Your task to perform on an android device: Open Yahoo.com Image 0: 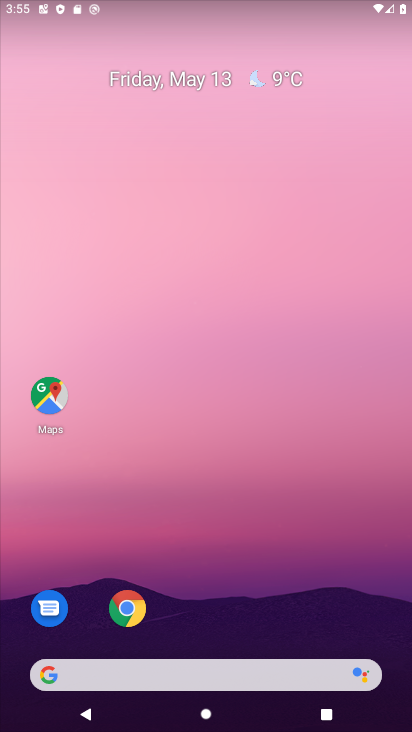
Step 0: click (176, 385)
Your task to perform on an android device: Open Yahoo.com Image 1: 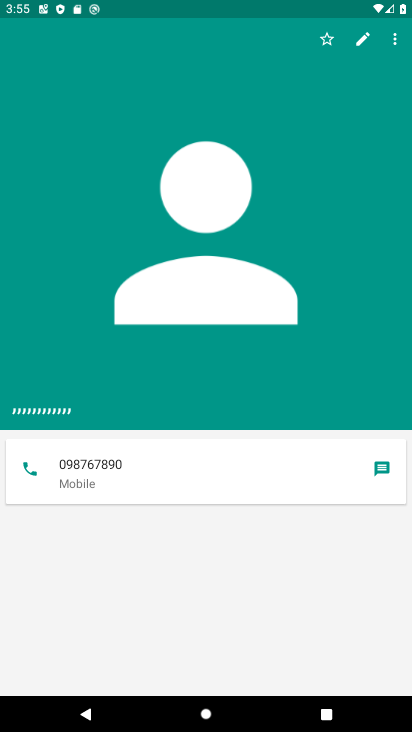
Step 1: press home button
Your task to perform on an android device: Open Yahoo.com Image 2: 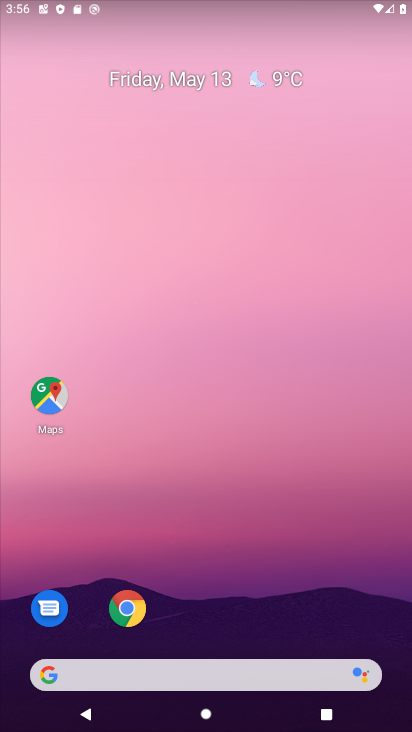
Step 2: drag from (136, 537) to (143, 446)
Your task to perform on an android device: Open Yahoo.com Image 3: 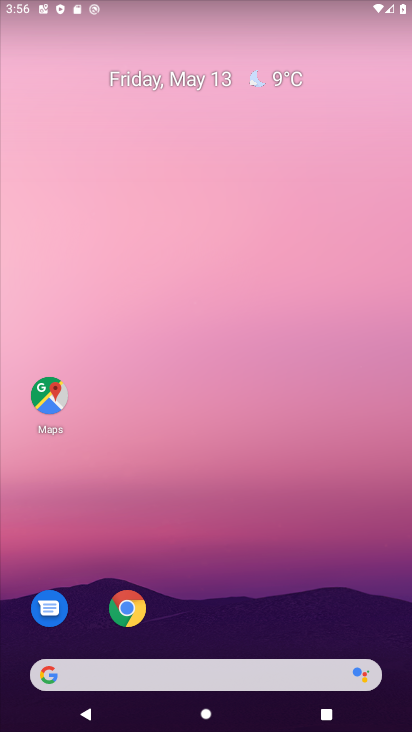
Step 3: drag from (216, 670) to (179, 410)
Your task to perform on an android device: Open Yahoo.com Image 4: 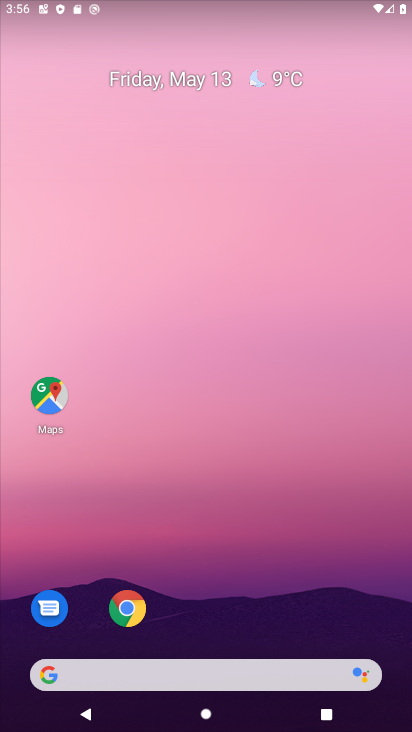
Step 4: drag from (170, 662) to (139, 312)
Your task to perform on an android device: Open Yahoo.com Image 5: 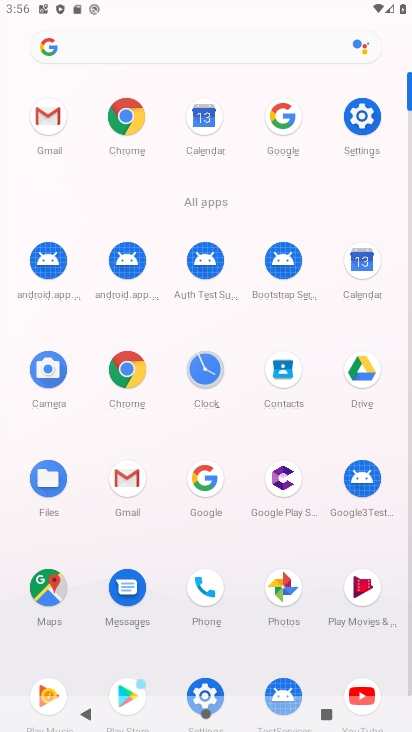
Step 5: click (131, 374)
Your task to perform on an android device: Open Yahoo.com Image 6: 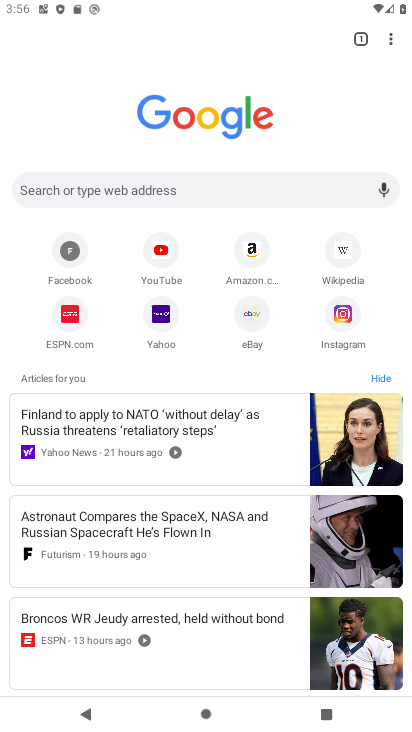
Step 6: click (160, 310)
Your task to perform on an android device: Open Yahoo.com Image 7: 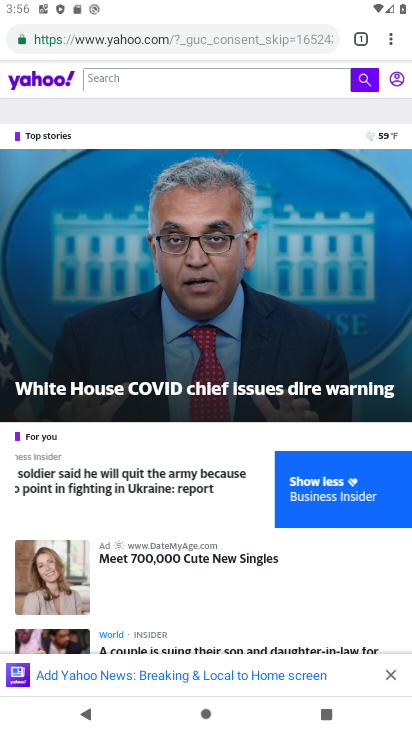
Step 7: task complete